Your task to perform on an android device: Open settings on Google Maps Image 0: 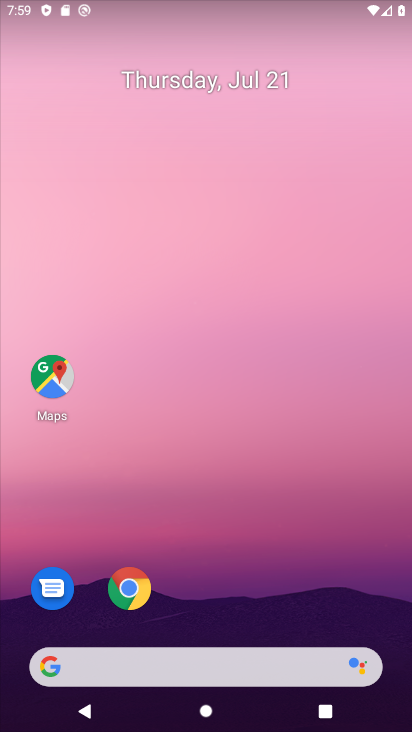
Step 0: drag from (270, 702) to (234, 108)
Your task to perform on an android device: Open settings on Google Maps Image 1: 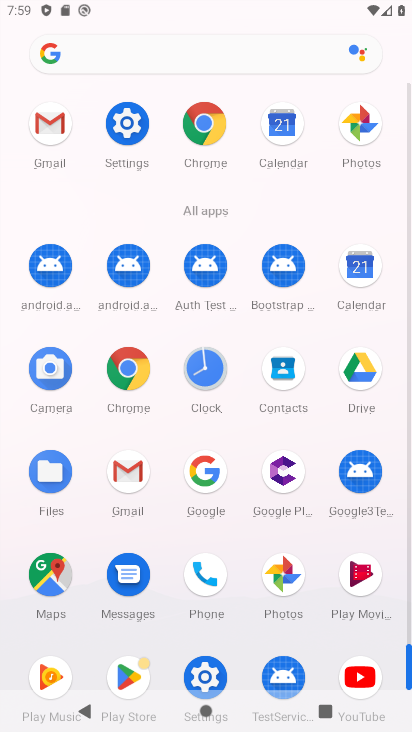
Step 1: click (45, 586)
Your task to perform on an android device: Open settings on Google Maps Image 2: 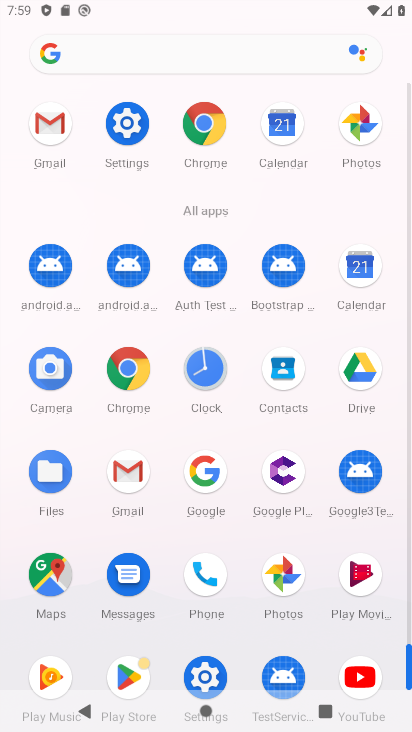
Step 2: click (45, 586)
Your task to perform on an android device: Open settings on Google Maps Image 3: 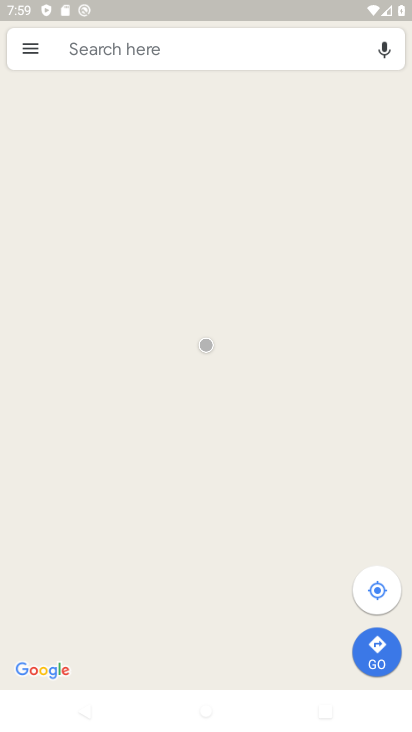
Step 3: click (30, 46)
Your task to perform on an android device: Open settings on Google Maps Image 4: 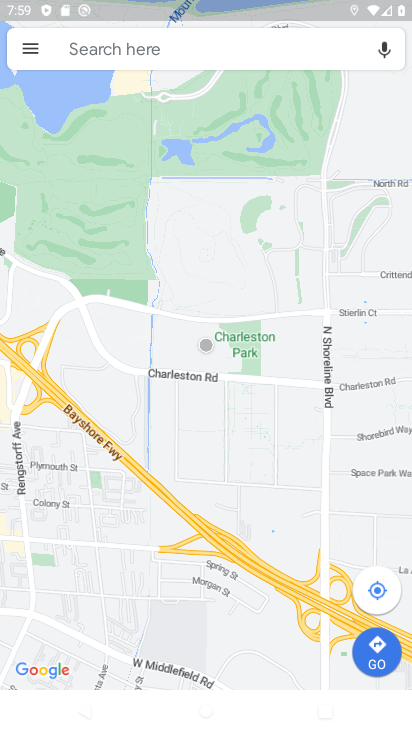
Step 4: click (32, 61)
Your task to perform on an android device: Open settings on Google Maps Image 5: 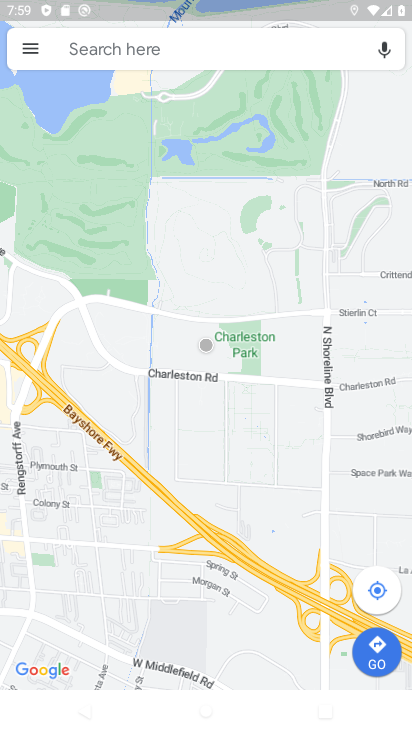
Step 5: click (34, 60)
Your task to perform on an android device: Open settings on Google Maps Image 6: 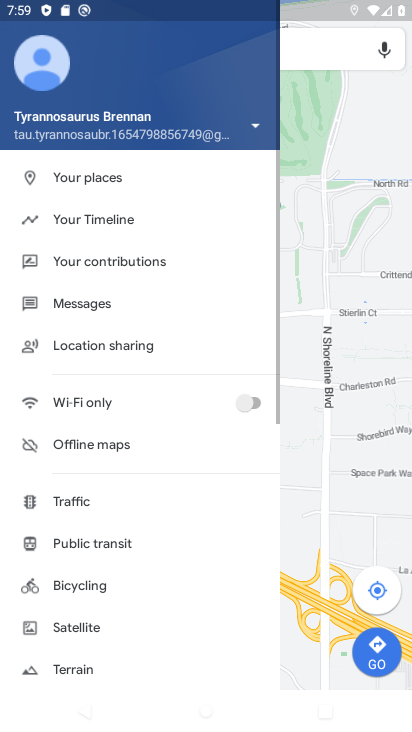
Step 6: drag from (35, 60) to (140, 200)
Your task to perform on an android device: Open settings on Google Maps Image 7: 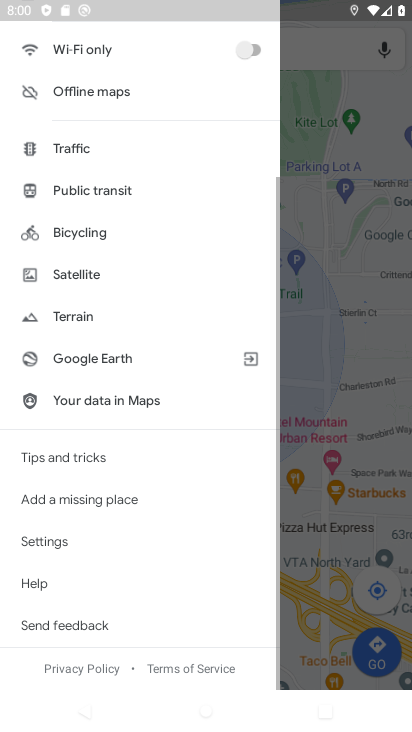
Step 7: drag from (119, 361) to (33, 541)
Your task to perform on an android device: Open settings on Google Maps Image 8: 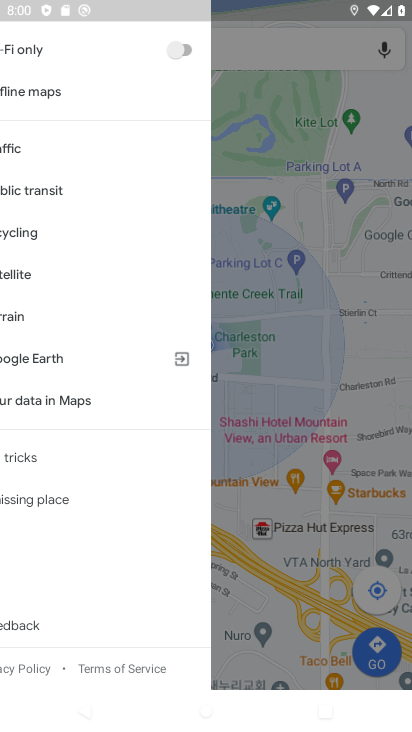
Step 8: click (33, 540)
Your task to perform on an android device: Open settings on Google Maps Image 9: 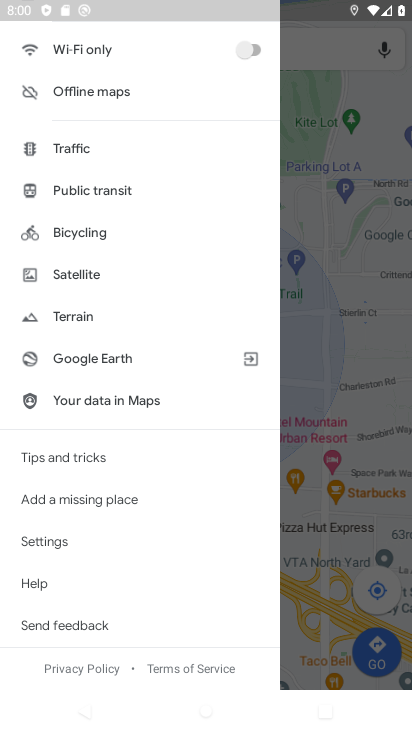
Step 9: click (34, 545)
Your task to perform on an android device: Open settings on Google Maps Image 10: 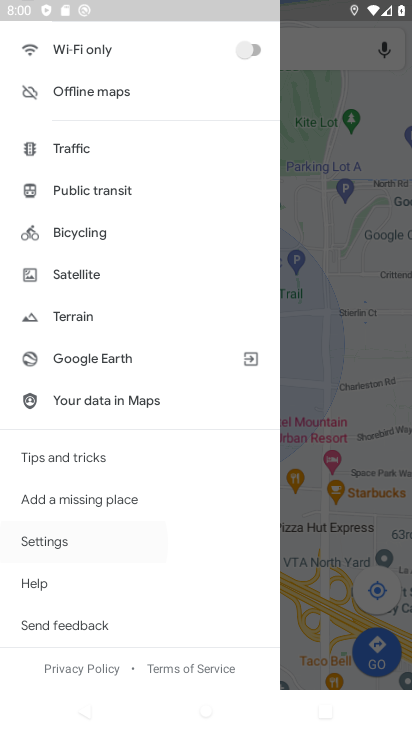
Step 10: click (33, 545)
Your task to perform on an android device: Open settings on Google Maps Image 11: 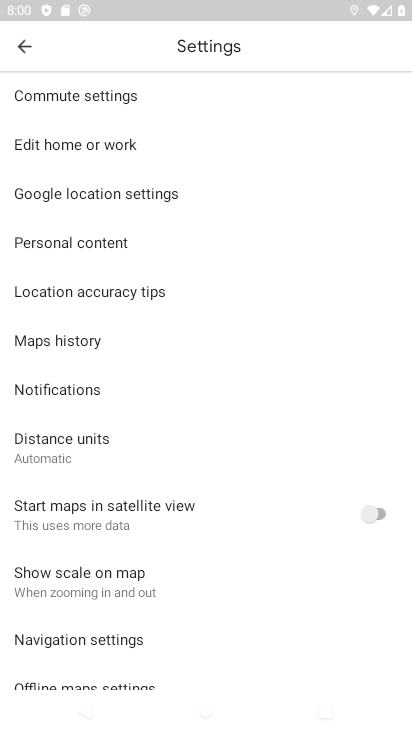
Step 11: task complete